Your task to perform on an android device: change keyboard looks Image 0: 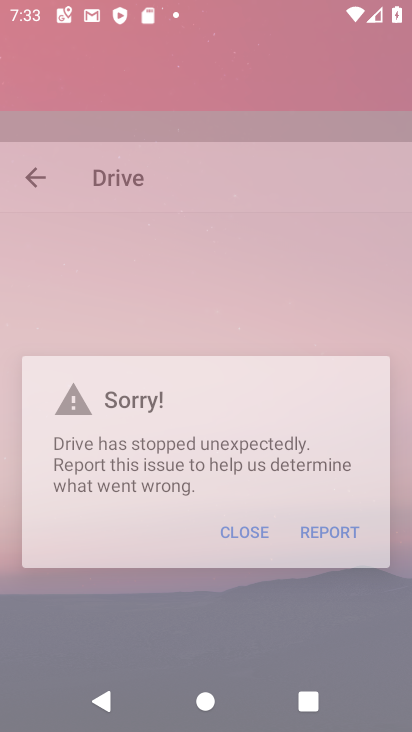
Step 0: drag from (288, 249) to (355, 61)
Your task to perform on an android device: change keyboard looks Image 1: 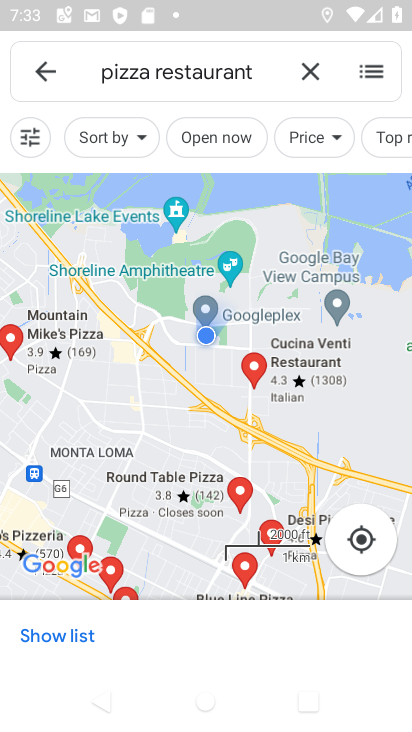
Step 1: press home button
Your task to perform on an android device: change keyboard looks Image 2: 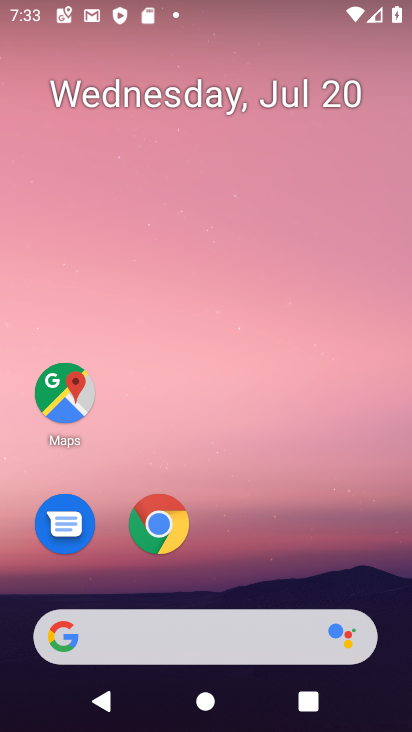
Step 2: drag from (167, 649) to (355, 0)
Your task to perform on an android device: change keyboard looks Image 3: 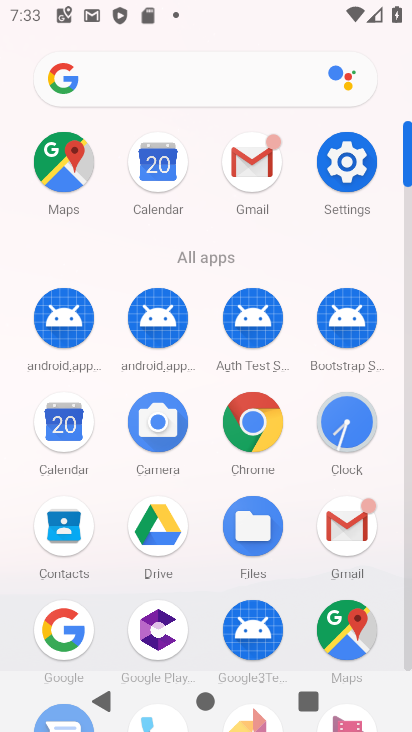
Step 3: click (344, 152)
Your task to perform on an android device: change keyboard looks Image 4: 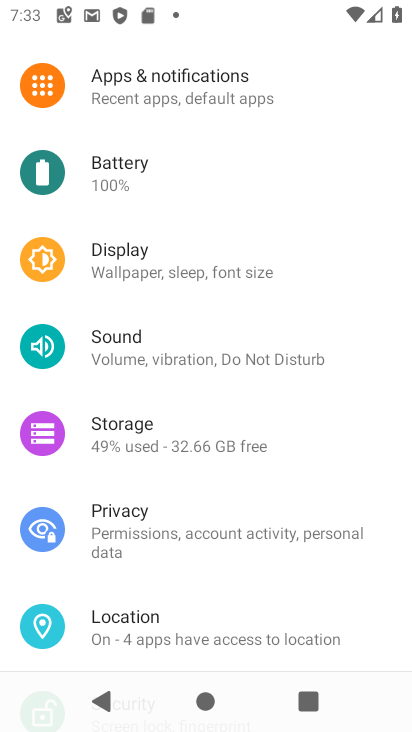
Step 4: drag from (222, 586) to (387, 117)
Your task to perform on an android device: change keyboard looks Image 5: 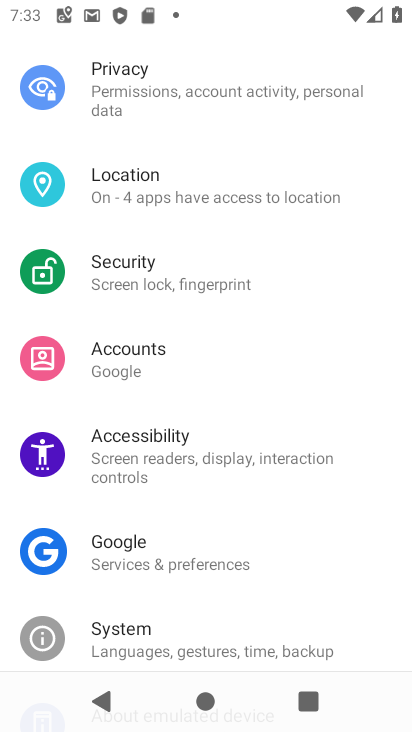
Step 5: drag from (240, 616) to (343, 185)
Your task to perform on an android device: change keyboard looks Image 6: 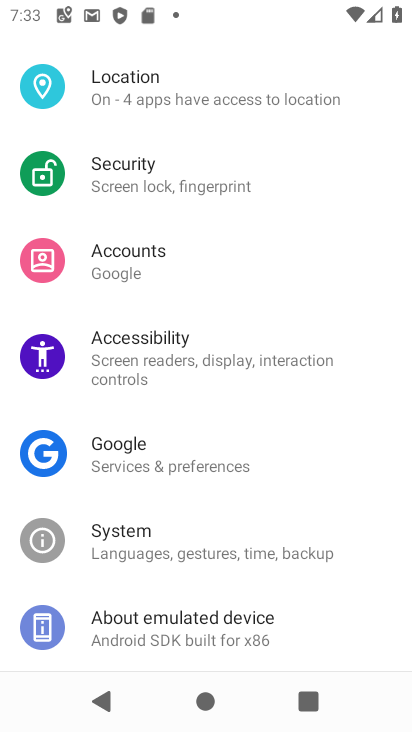
Step 6: click (156, 544)
Your task to perform on an android device: change keyboard looks Image 7: 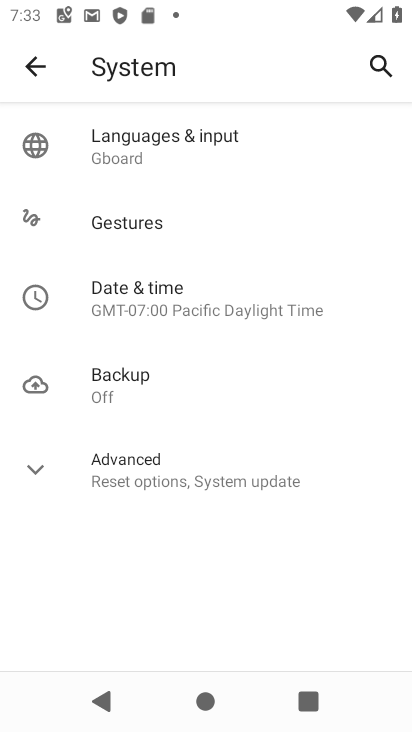
Step 7: click (128, 142)
Your task to perform on an android device: change keyboard looks Image 8: 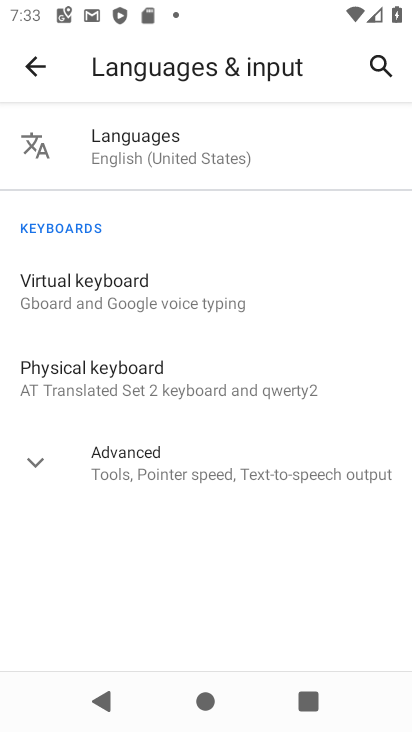
Step 8: click (142, 292)
Your task to perform on an android device: change keyboard looks Image 9: 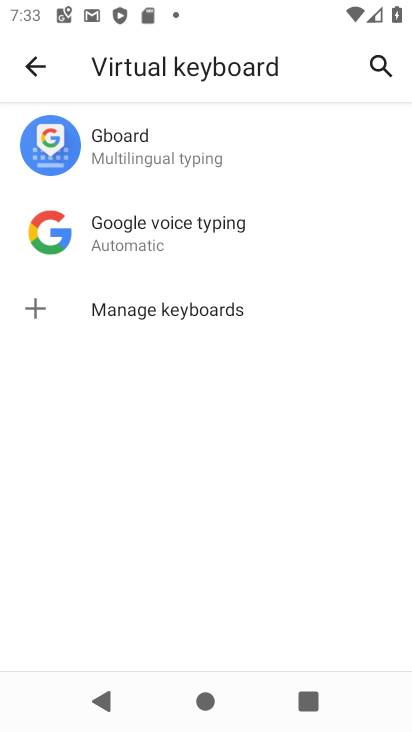
Step 9: click (164, 140)
Your task to perform on an android device: change keyboard looks Image 10: 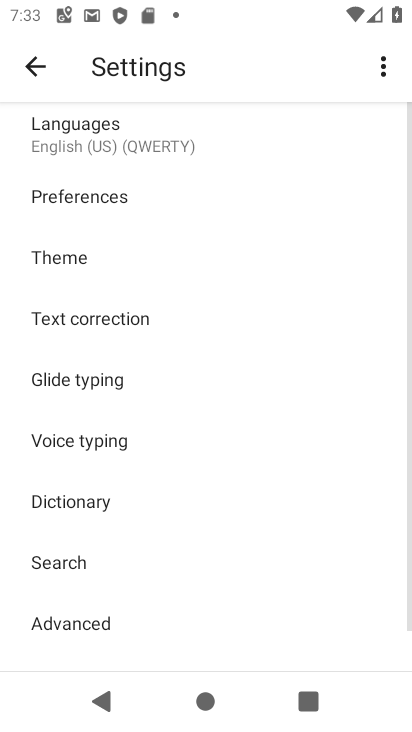
Step 10: click (81, 252)
Your task to perform on an android device: change keyboard looks Image 11: 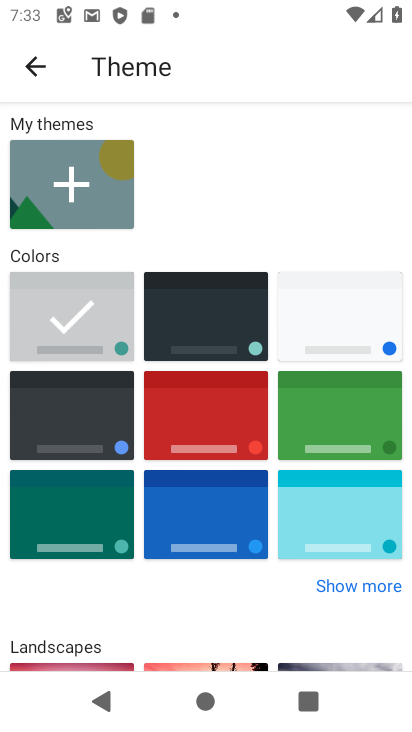
Step 11: click (211, 416)
Your task to perform on an android device: change keyboard looks Image 12: 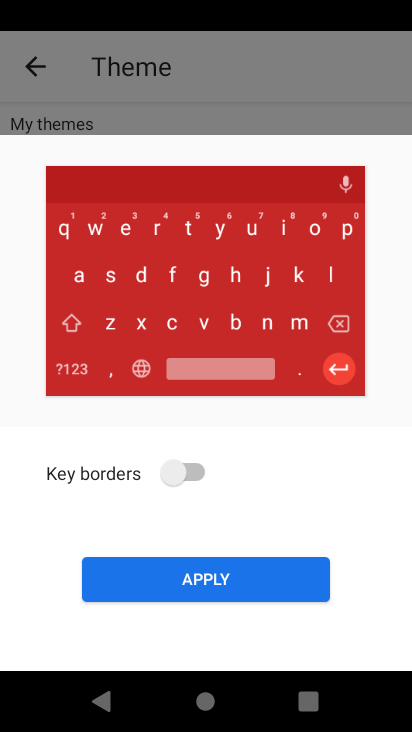
Step 12: click (199, 576)
Your task to perform on an android device: change keyboard looks Image 13: 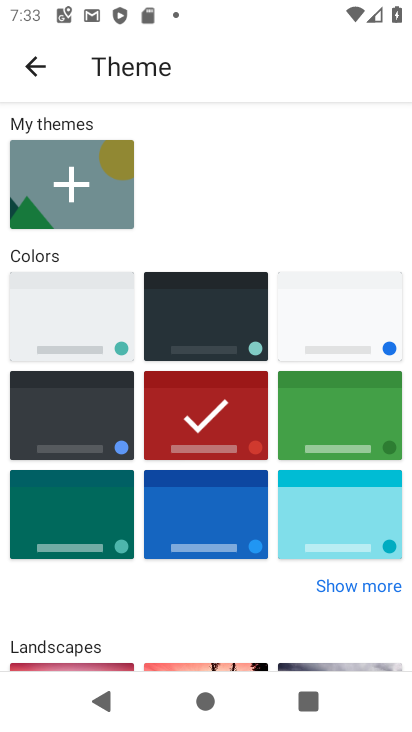
Step 13: task complete